Your task to perform on an android device: Open Google Chrome Image 0: 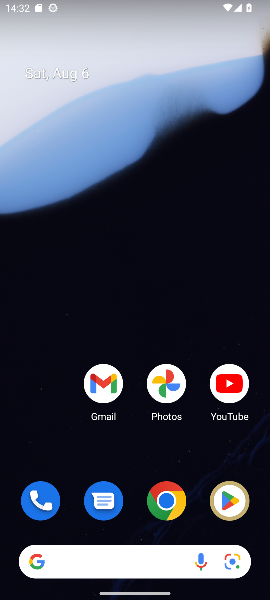
Step 0: press home button
Your task to perform on an android device: Open Google Chrome Image 1: 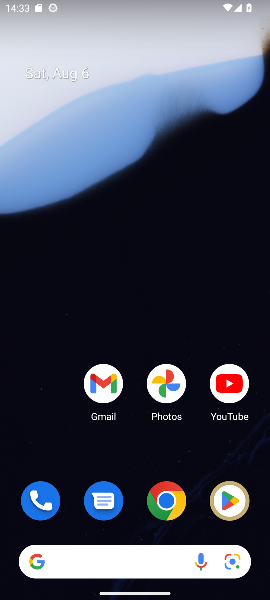
Step 1: click (166, 507)
Your task to perform on an android device: Open Google Chrome Image 2: 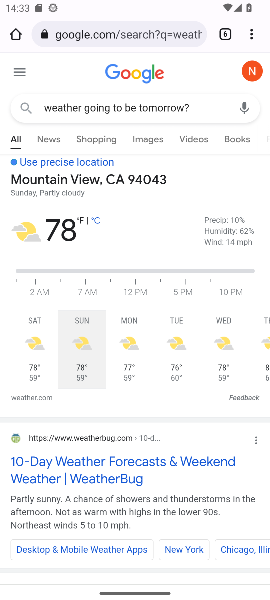
Step 2: click (231, 36)
Your task to perform on an android device: Open Google Chrome Image 3: 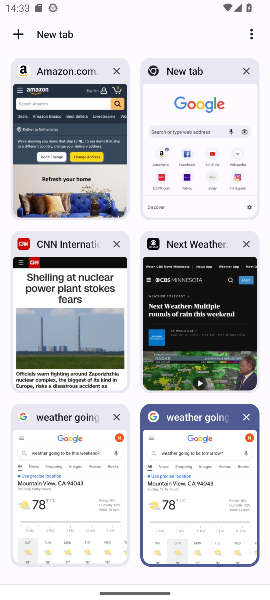
Step 3: click (22, 34)
Your task to perform on an android device: Open Google Chrome Image 4: 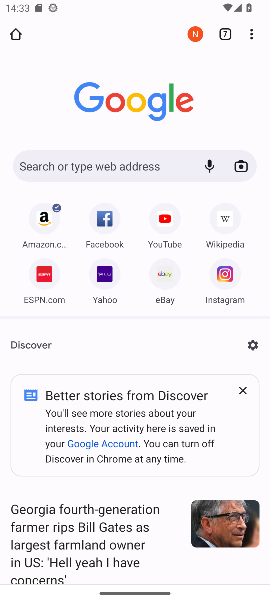
Step 4: task complete